Your task to perform on an android device: toggle translation in the chrome app Image 0: 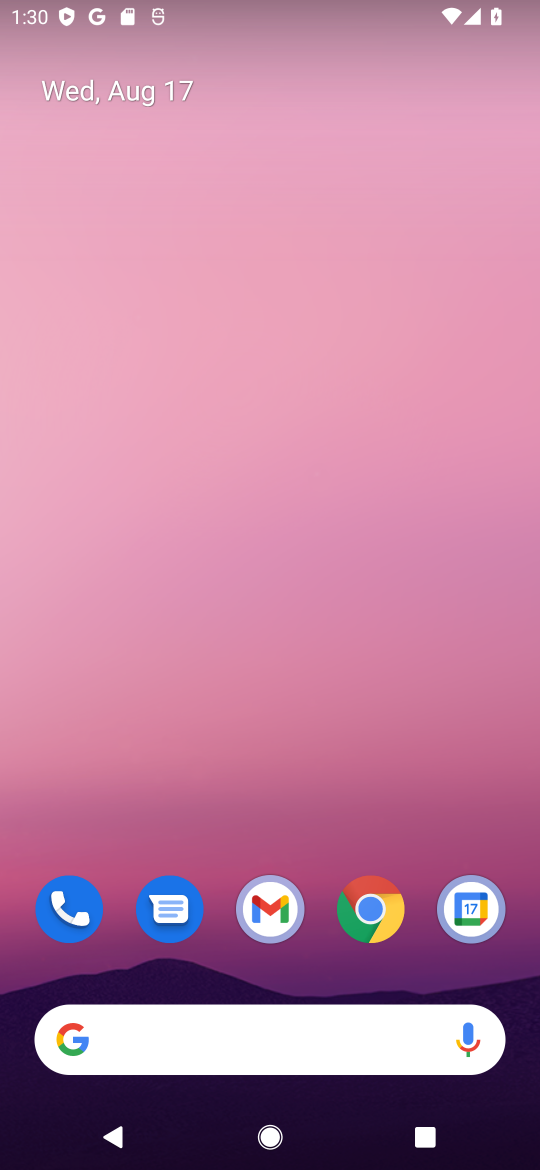
Step 0: click (376, 907)
Your task to perform on an android device: toggle translation in the chrome app Image 1: 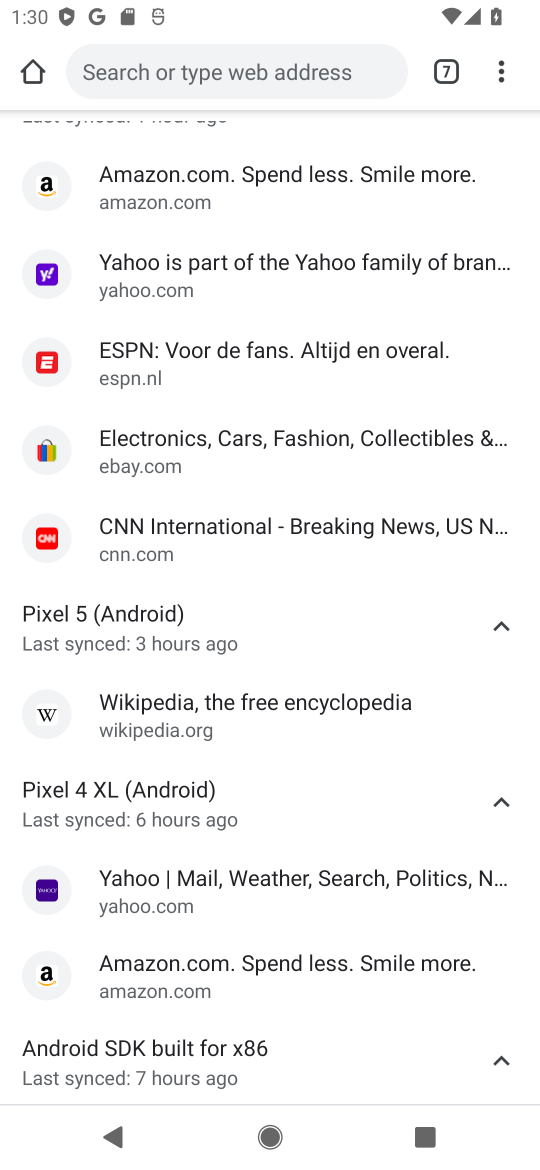
Step 1: click (500, 60)
Your task to perform on an android device: toggle translation in the chrome app Image 2: 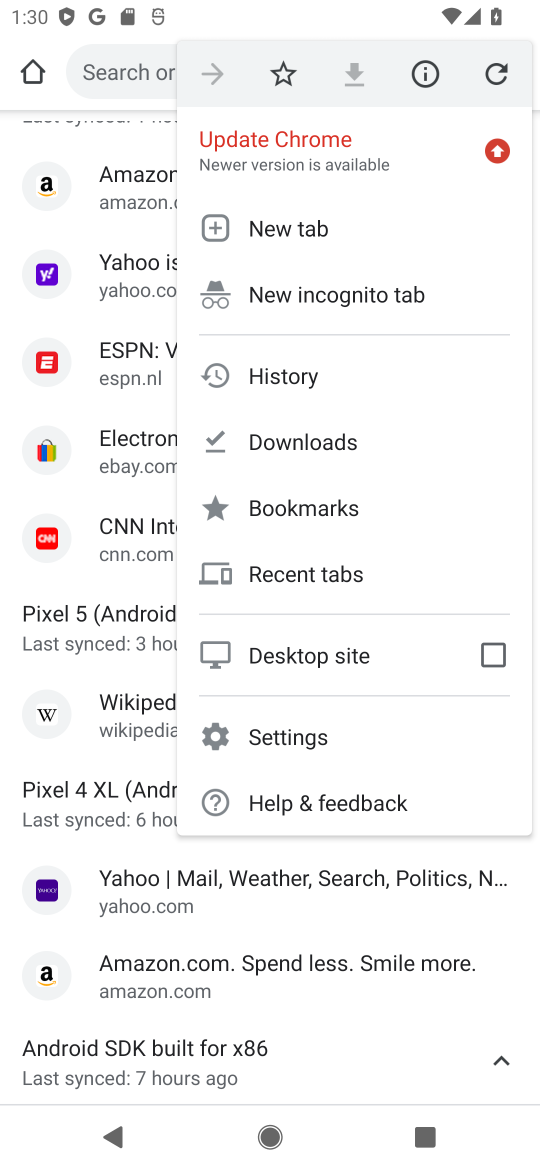
Step 2: click (283, 726)
Your task to perform on an android device: toggle translation in the chrome app Image 3: 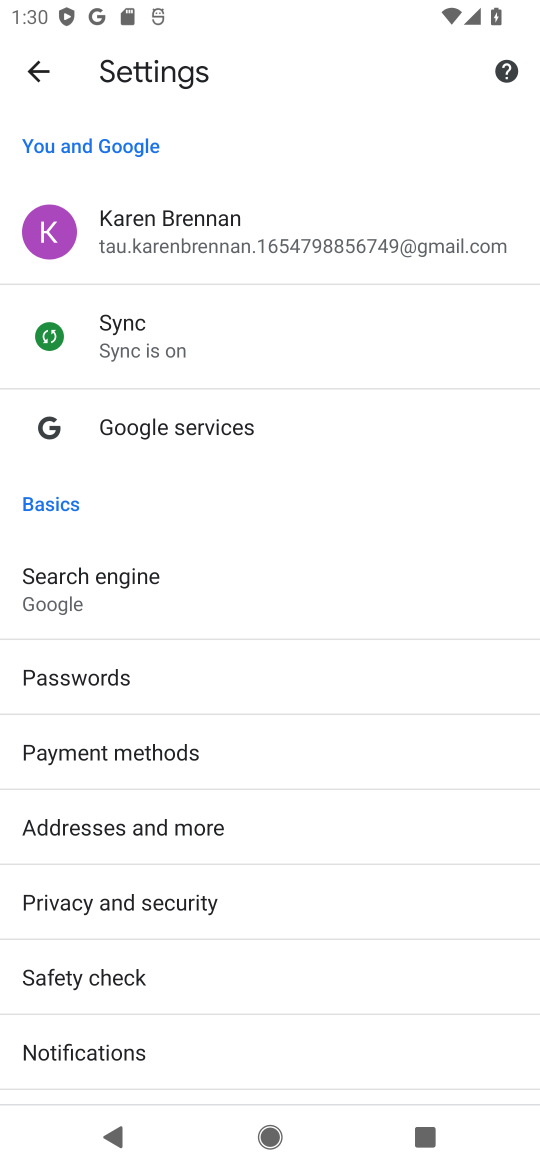
Step 3: drag from (156, 777) to (254, 21)
Your task to perform on an android device: toggle translation in the chrome app Image 4: 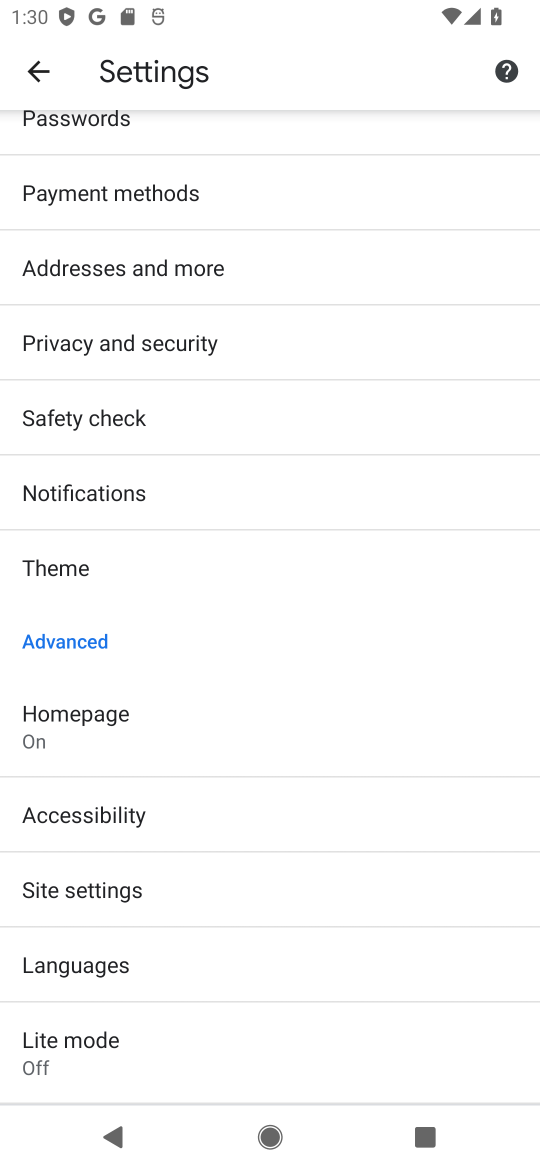
Step 4: click (65, 961)
Your task to perform on an android device: toggle translation in the chrome app Image 5: 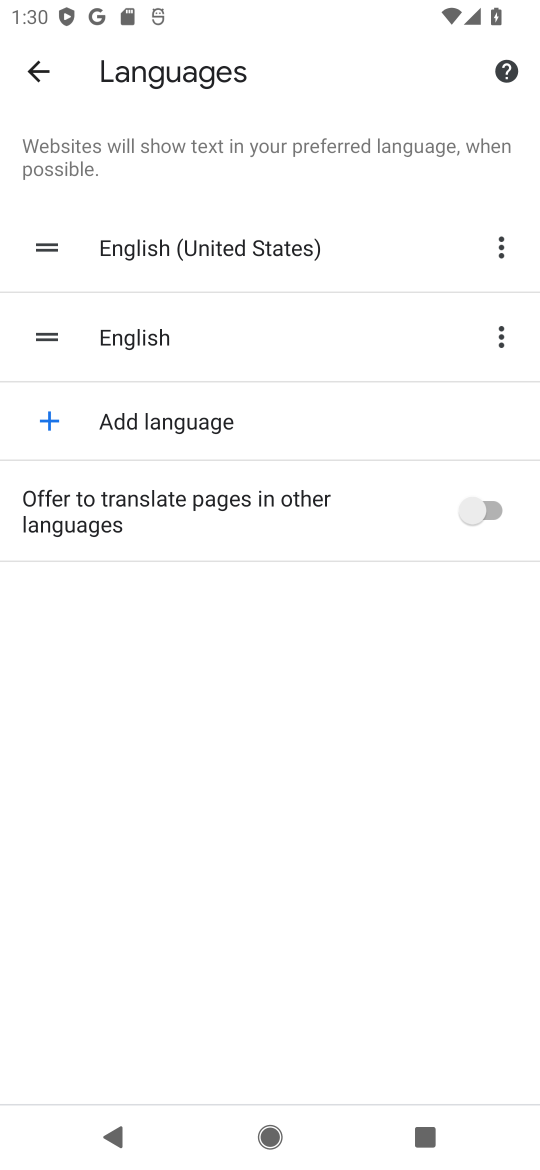
Step 5: click (464, 504)
Your task to perform on an android device: toggle translation in the chrome app Image 6: 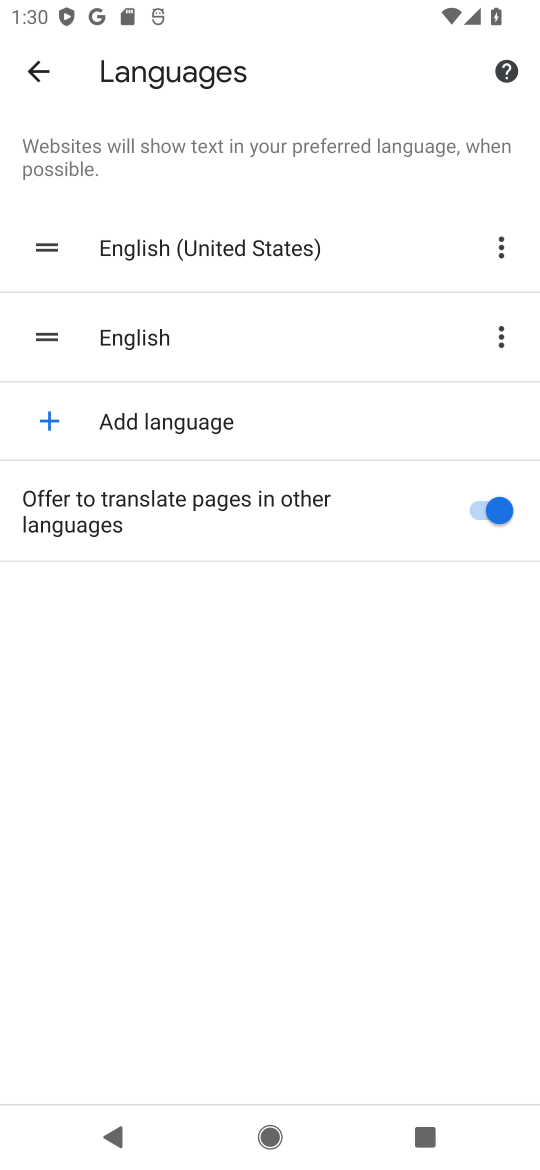
Step 6: task complete